Your task to perform on an android device: Go to Amazon Image 0: 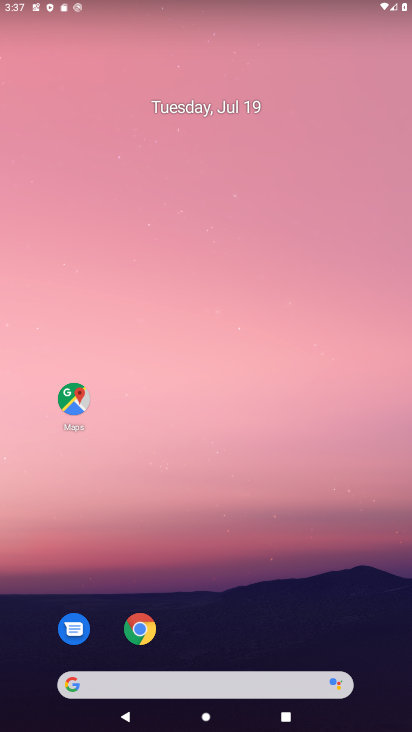
Step 0: drag from (278, 654) to (233, 35)
Your task to perform on an android device: Go to Amazon Image 1: 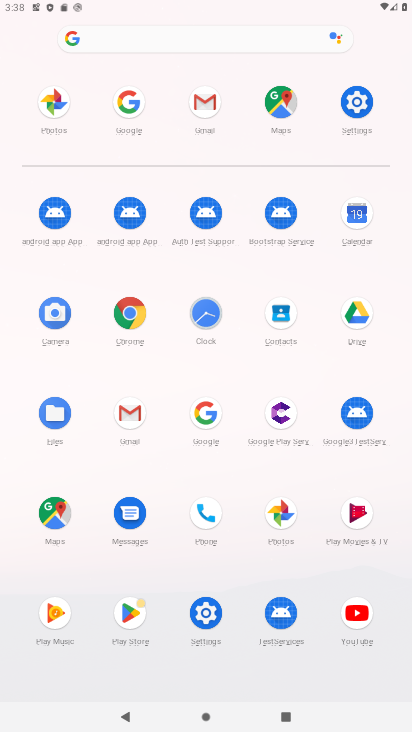
Step 1: click (197, 415)
Your task to perform on an android device: Go to Amazon Image 2: 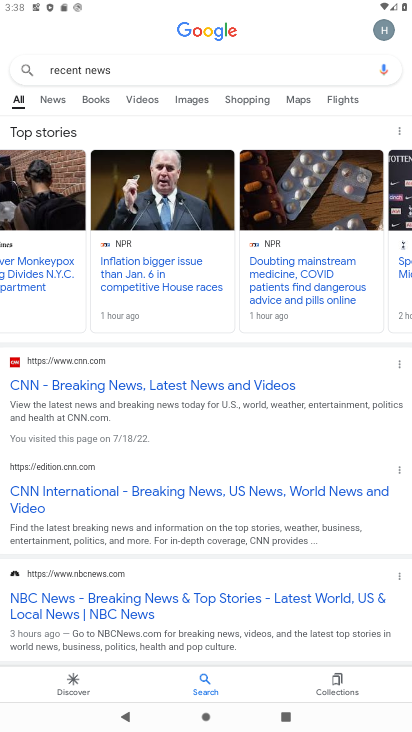
Step 2: click (124, 59)
Your task to perform on an android device: Go to Amazon Image 3: 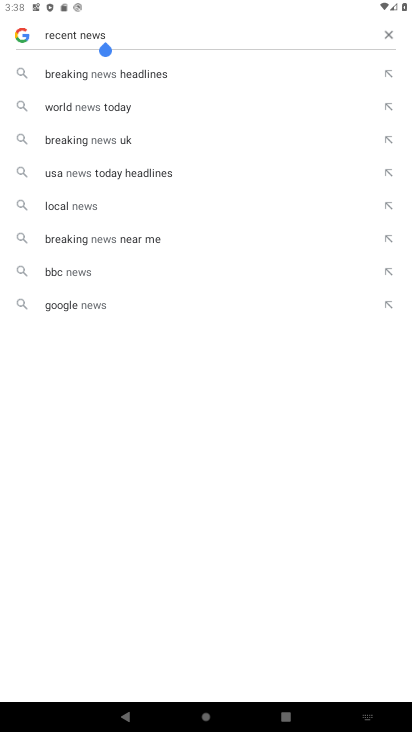
Step 3: click (391, 34)
Your task to perform on an android device: Go to Amazon Image 4: 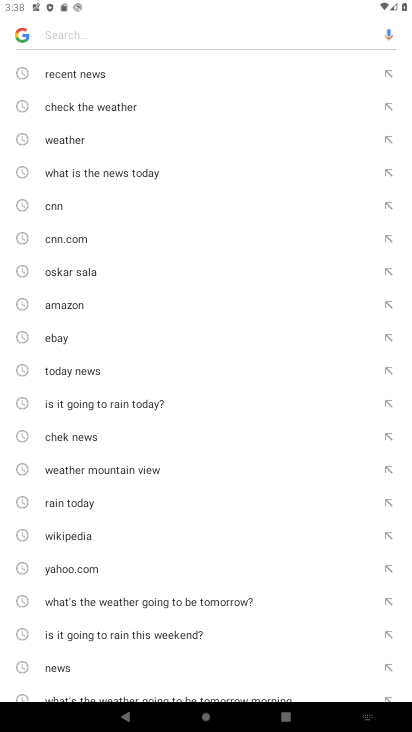
Step 4: click (72, 312)
Your task to perform on an android device: Go to Amazon Image 5: 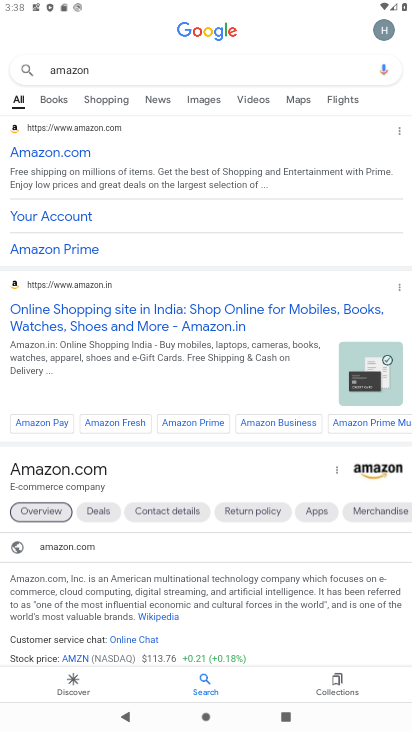
Step 5: click (64, 151)
Your task to perform on an android device: Go to Amazon Image 6: 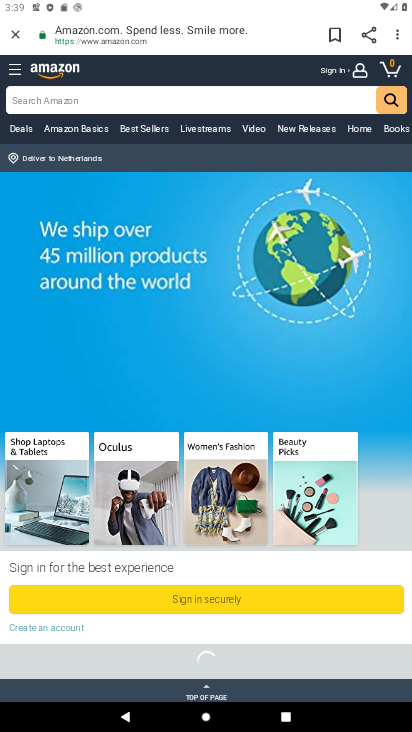
Step 6: task complete